Your task to perform on an android device: View the shopping cart on amazon.com. Add "apple airpods pro" to the cart on amazon.com, then select checkout. Image 0: 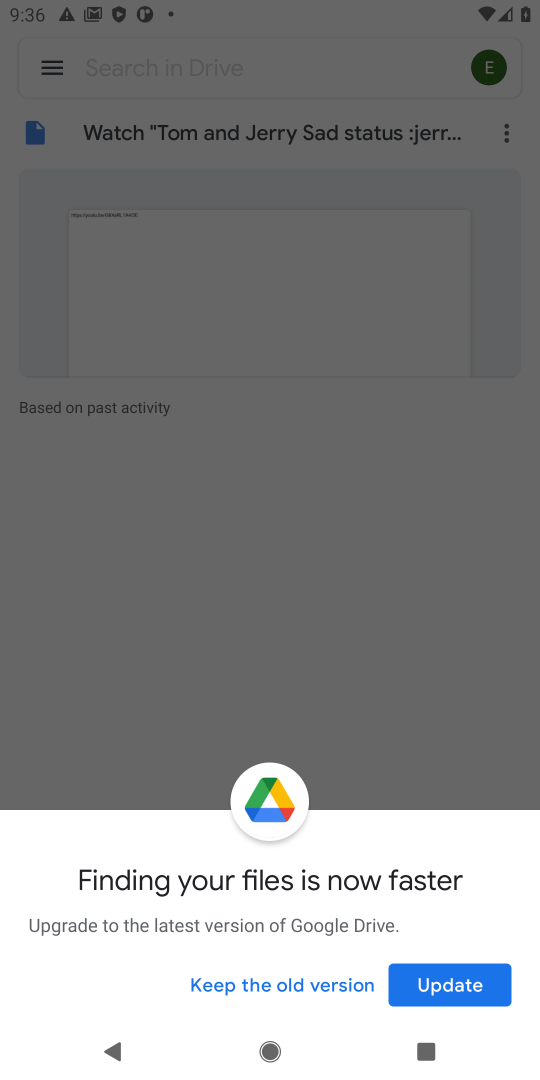
Step 0: press home button
Your task to perform on an android device: View the shopping cart on amazon.com. Add "apple airpods pro" to the cart on amazon.com, then select checkout. Image 1: 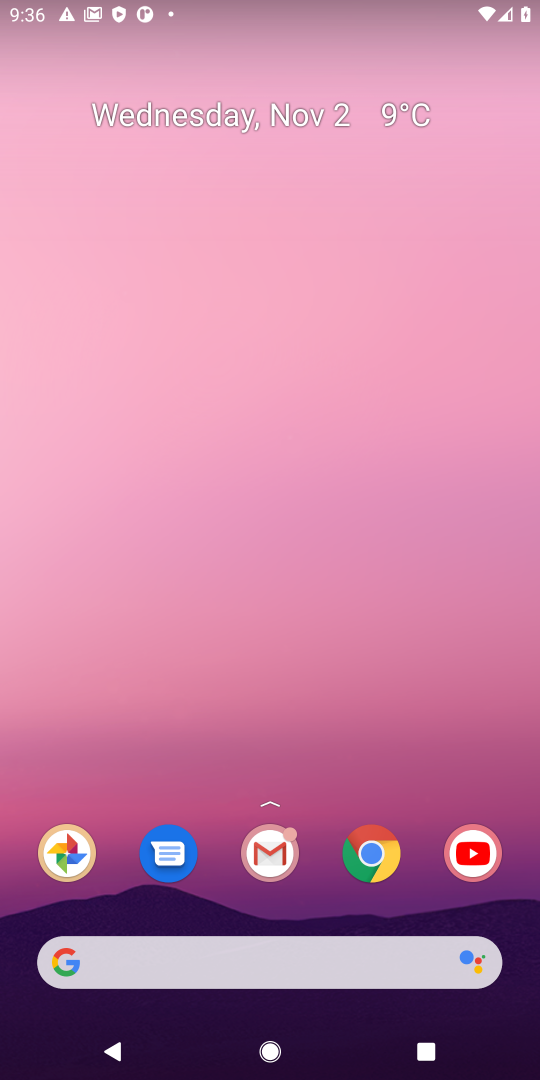
Step 1: click (361, 856)
Your task to perform on an android device: View the shopping cart on amazon.com. Add "apple airpods pro" to the cart on amazon.com, then select checkout. Image 2: 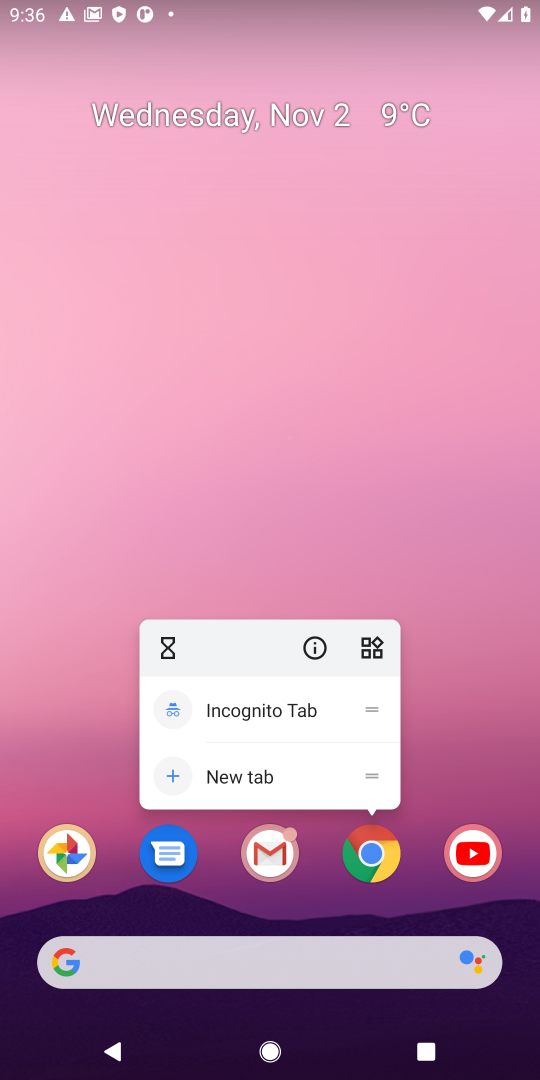
Step 2: click (371, 850)
Your task to perform on an android device: View the shopping cart on amazon.com. Add "apple airpods pro" to the cart on amazon.com, then select checkout. Image 3: 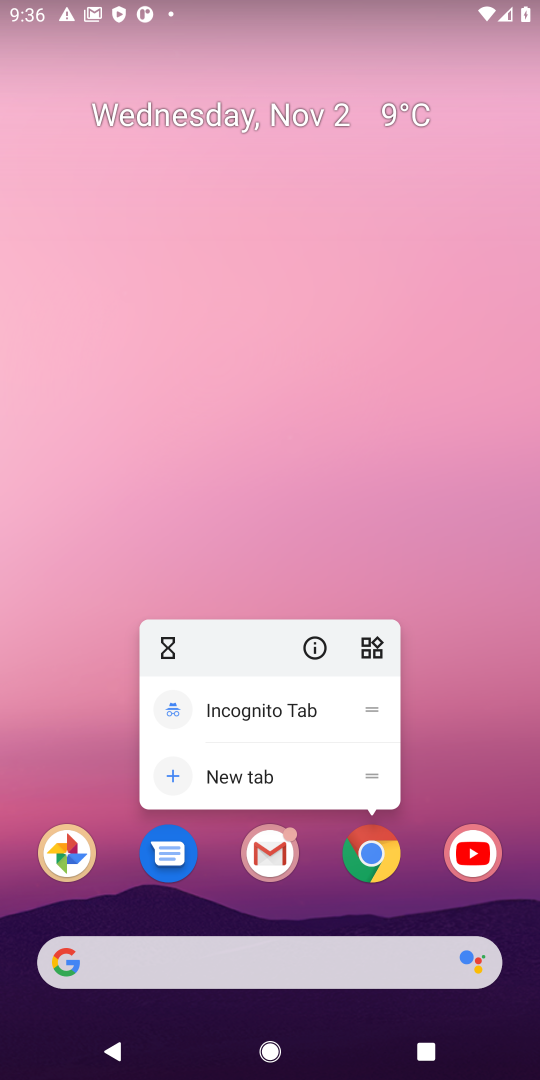
Step 3: click (385, 835)
Your task to perform on an android device: View the shopping cart on amazon.com. Add "apple airpods pro" to the cart on amazon.com, then select checkout. Image 4: 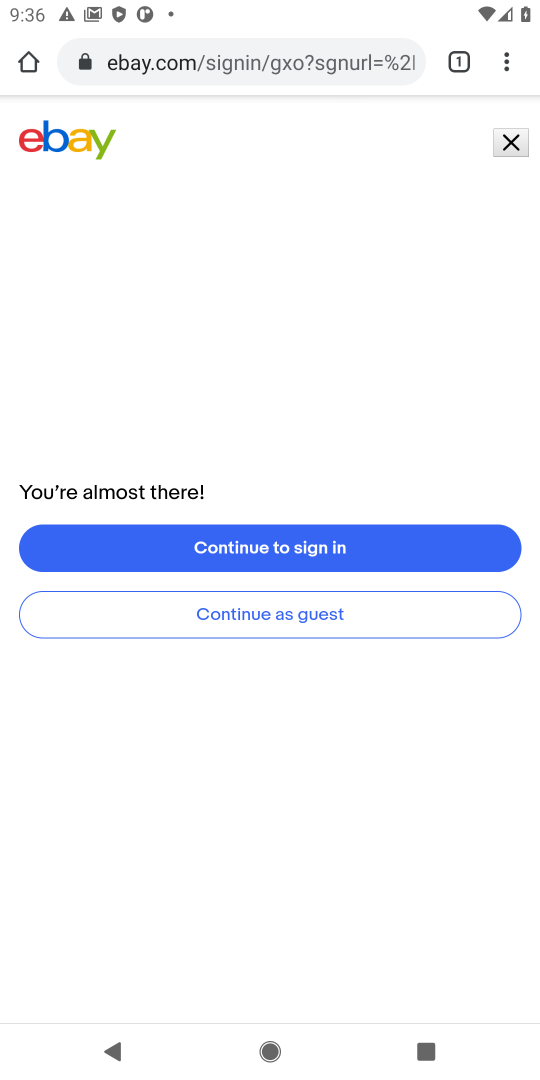
Step 4: click (201, 59)
Your task to perform on an android device: View the shopping cart on amazon.com. Add "apple airpods pro" to the cart on amazon.com, then select checkout. Image 5: 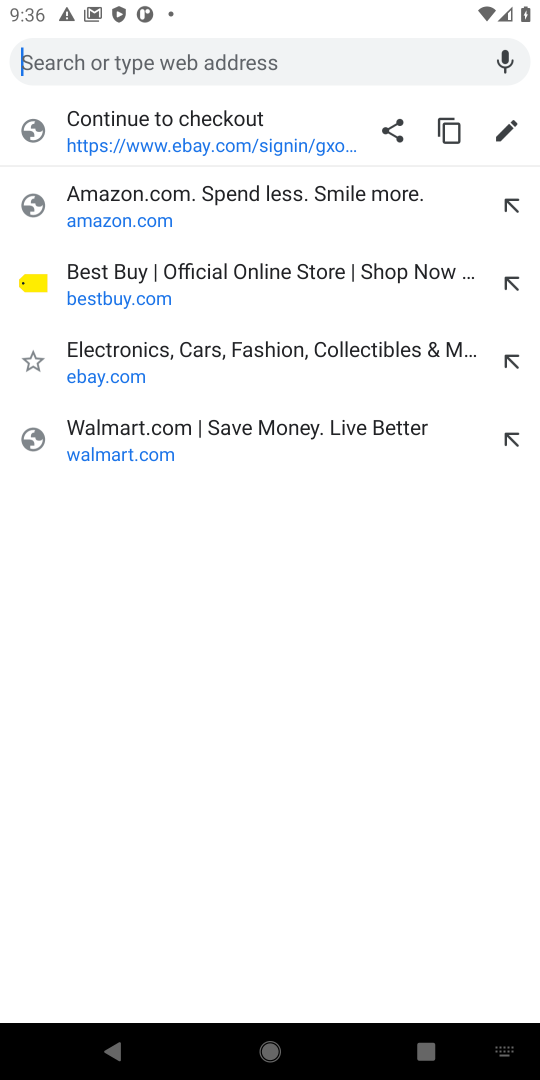
Step 5: click (117, 219)
Your task to perform on an android device: View the shopping cart on amazon.com. Add "apple airpods pro" to the cart on amazon.com, then select checkout. Image 6: 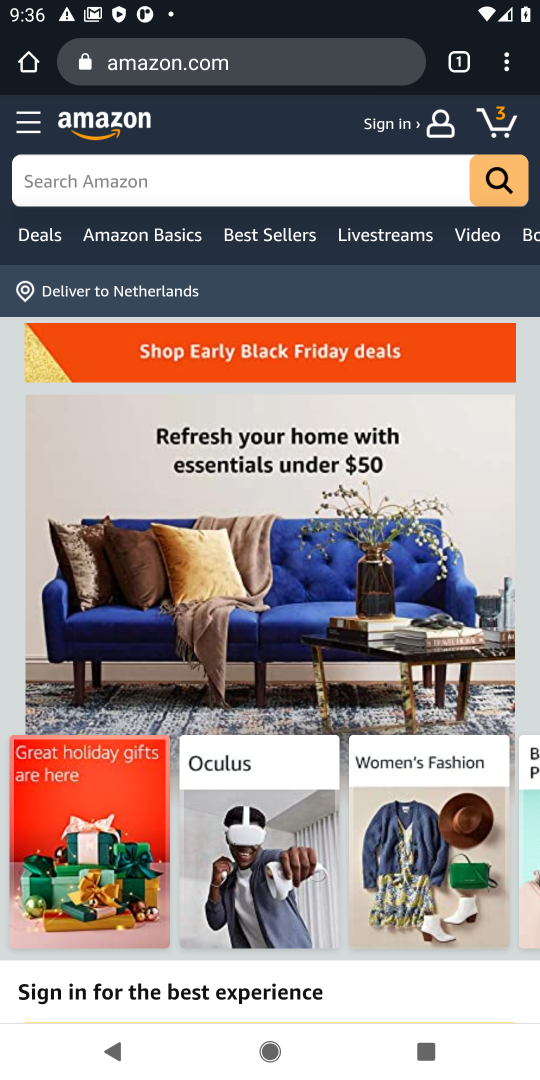
Step 6: click (124, 178)
Your task to perform on an android device: View the shopping cart on amazon.com. Add "apple airpods pro" to the cart on amazon.com, then select checkout. Image 7: 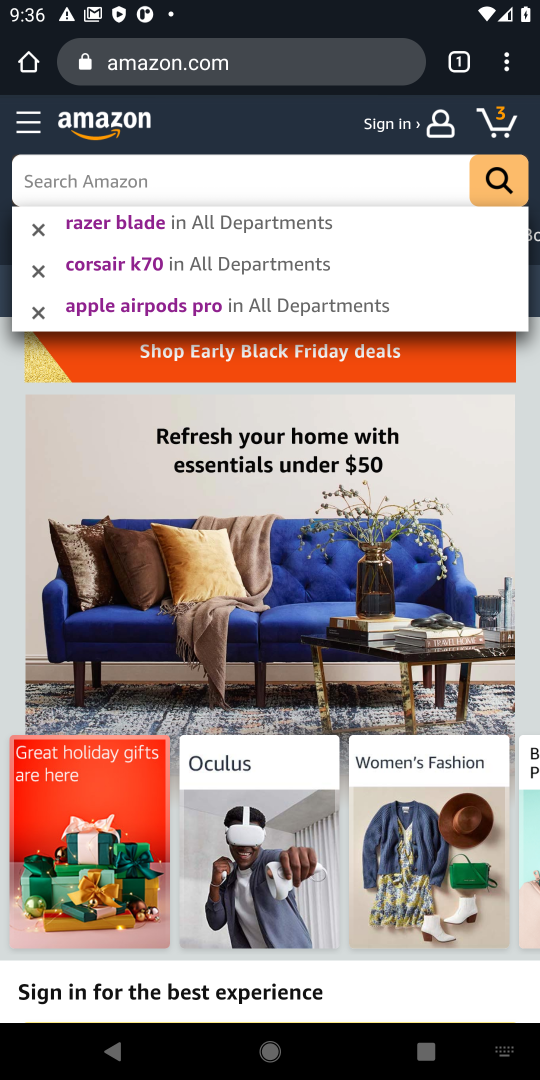
Step 7: type "apple airpods pro"
Your task to perform on an android device: View the shopping cart on amazon.com. Add "apple airpods pro" to the cart on amazon.com, then select checkout. Image 8: 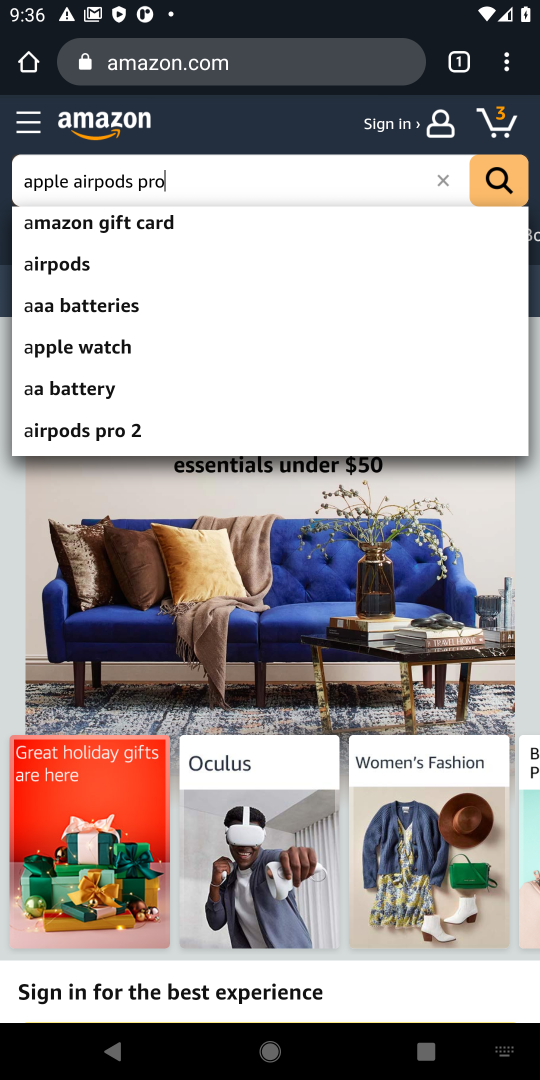
Step 8: press enter
Your task to perform on an android device: View the shopping cart on amazon.com. Add "apple airpods pro" to the cart on amazon.com, then select checkout. Image 9: 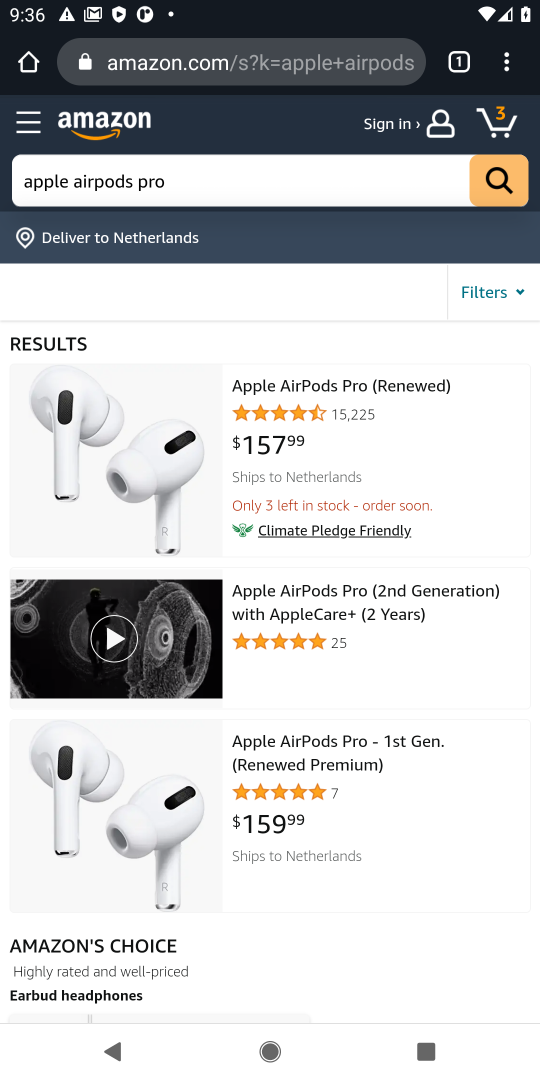
Step 9: click (290, 422)
Your task to perform on an android device: View the shopping cart on amazon.com. Add "apple airpods pro" to the cart on amazon.com, then select checkout. Image 10: 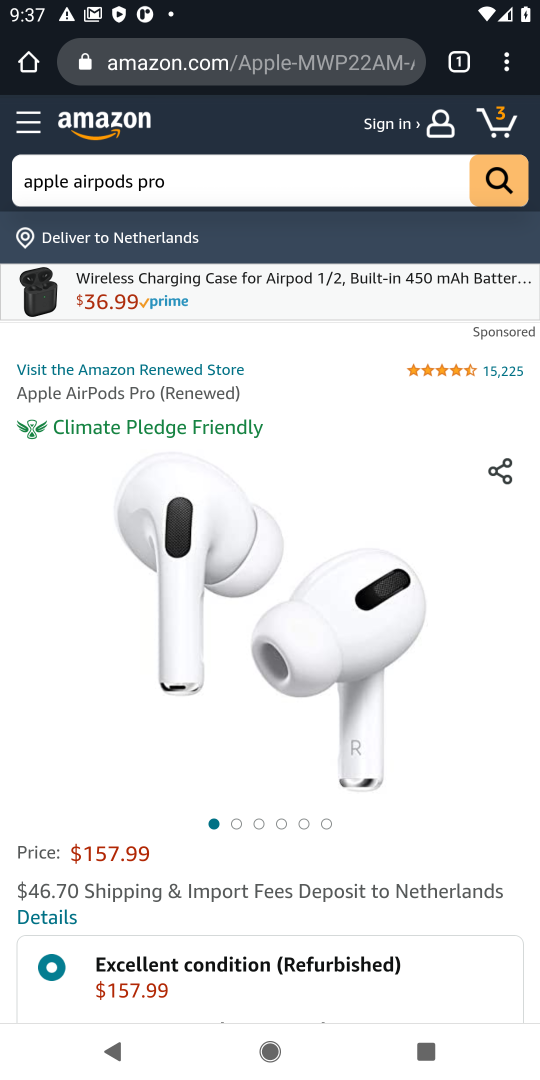
Step 10: drag from (279, 881) to (331, 347)
Your task to perform on an android device: View the shopping cart on amazon.com. Add "apple airpods pro" to the cart on amazon.com, then select checkout. Image 11: 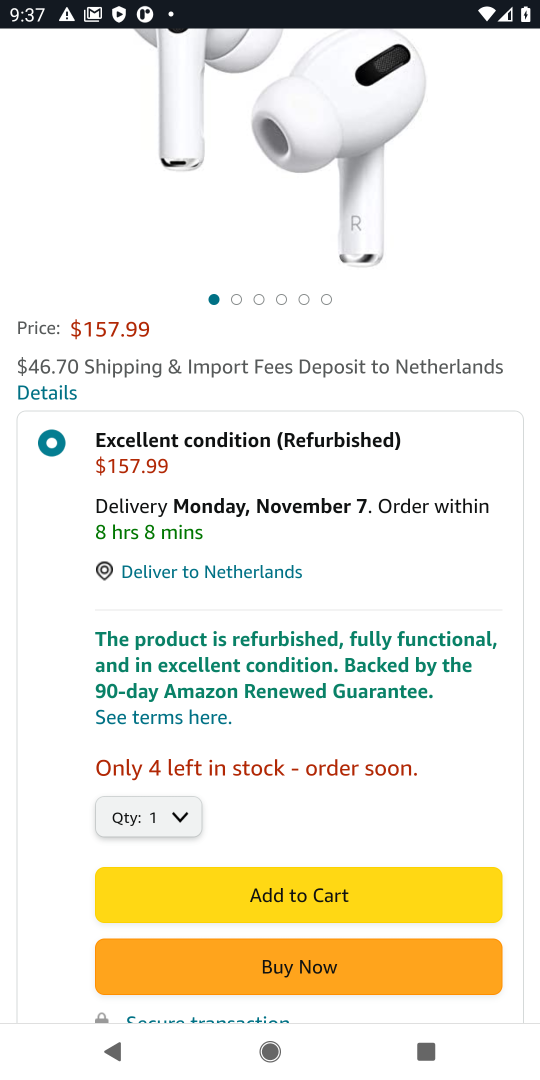
Step 11: click (319, 895)
Your task to perform on an android device: View the shopping cart on amazon.com. Add "apple airpods pro" to the cart on amazon.com, then select checkout. Image 12: 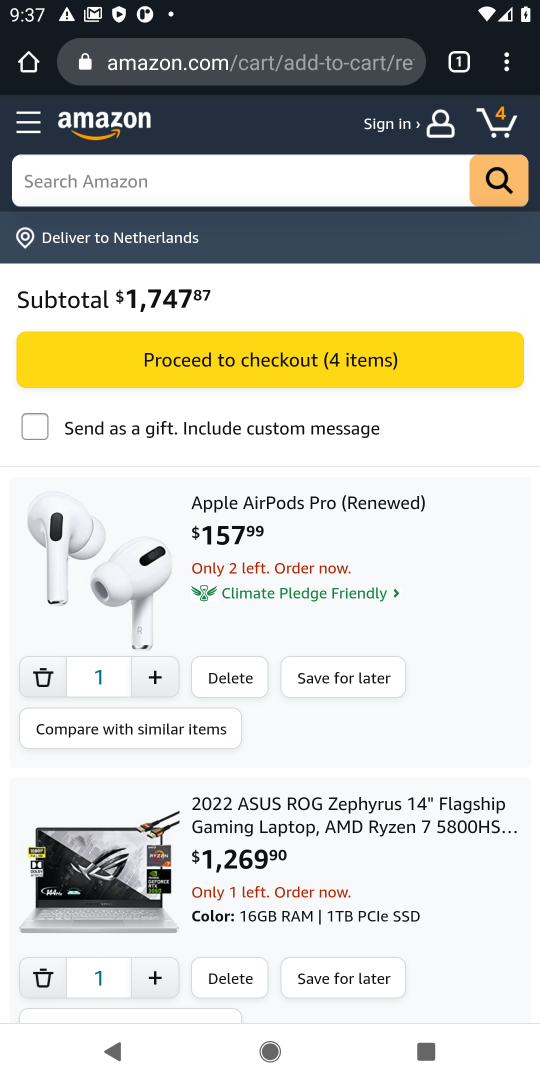
Step 12: click (485, 119)
Your task to perform on an android device: View the shopping cart on amazon.com. Add "apple airpods pro" to the cart on amazon.com, then select checkout. Image 13: 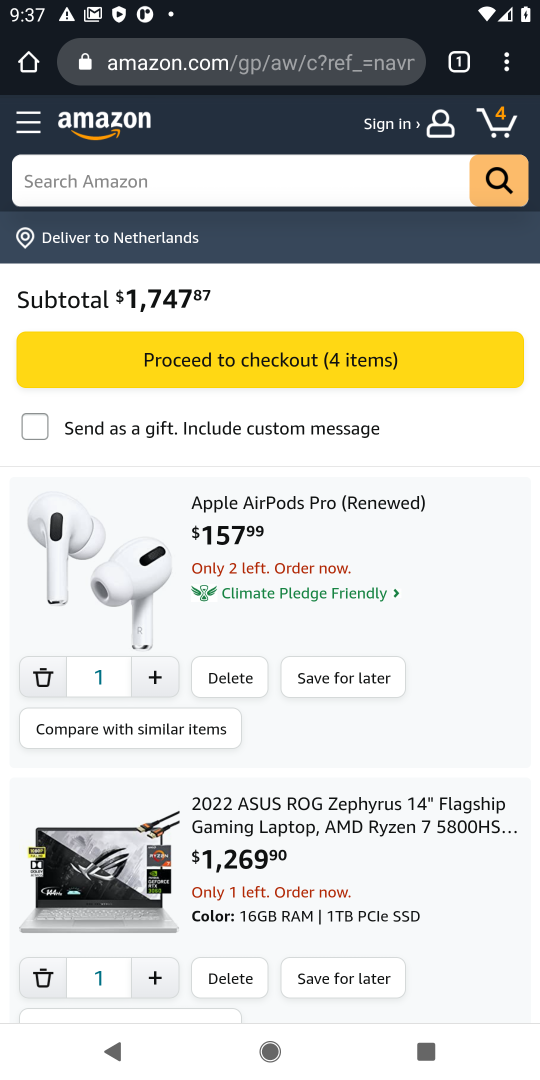
Step 13: drag from (270, 873) to (298, 513)
Your task to perform on an android device: View the shopping cart on amazon.com. Add "apple airpods pro" to the cart on amazon.com, then select checkout. Image 14: 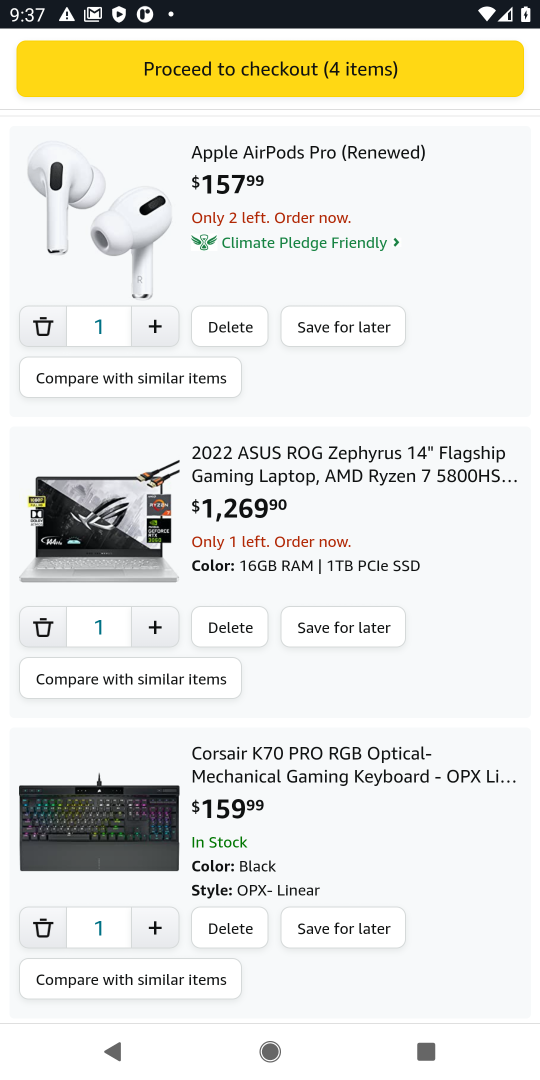
Step 14: click (234, 623)
Your task to perform on an android device: View the shopping cart on amazon.com. Add "apple airpods pro" to the cart on amazon.com, then select checkout. Image 15: 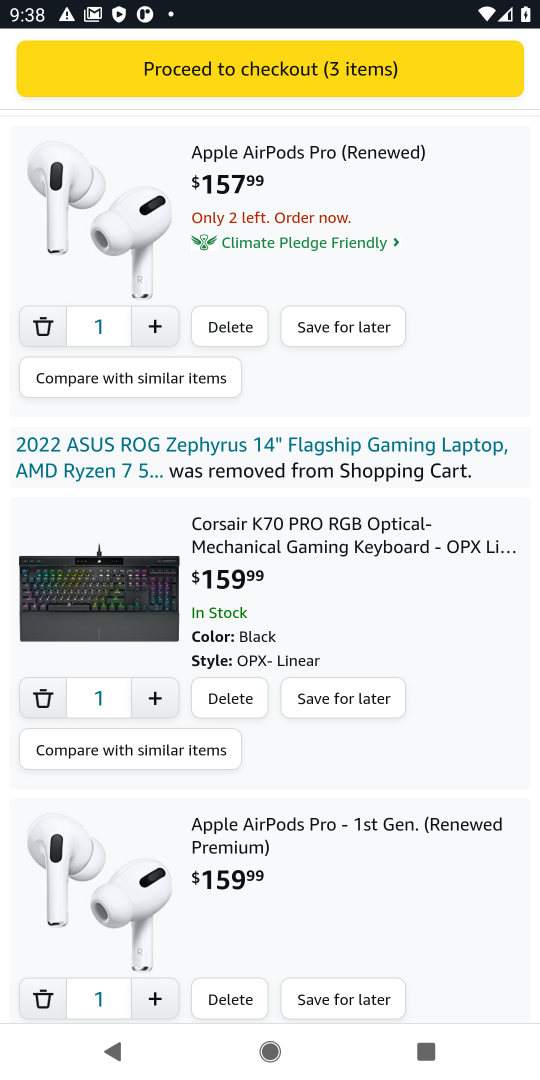
Step 15: click (232, 695)
Your task to perform on an android device: View the shopping cart on amazon.com. Add "apple airpods pro" to the cart on amazon.com, then select checkout. Image 16: 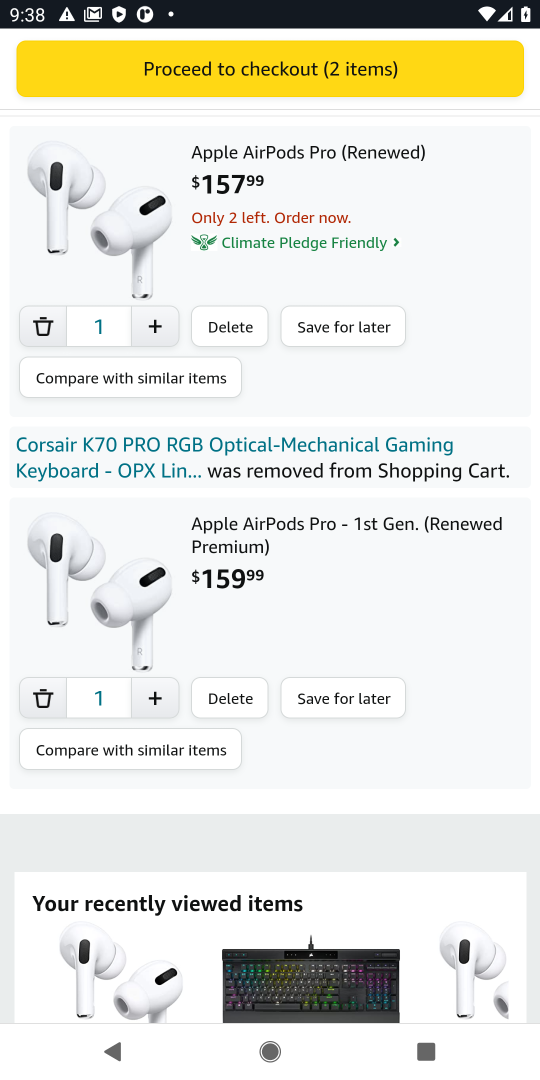
Step 16: click (228, 698)
Your task to perform on an android device: View the shopping cart on amazon.com. Add "apple airpods pro" to the cart on amazon.com, then select checkout. Image 17: 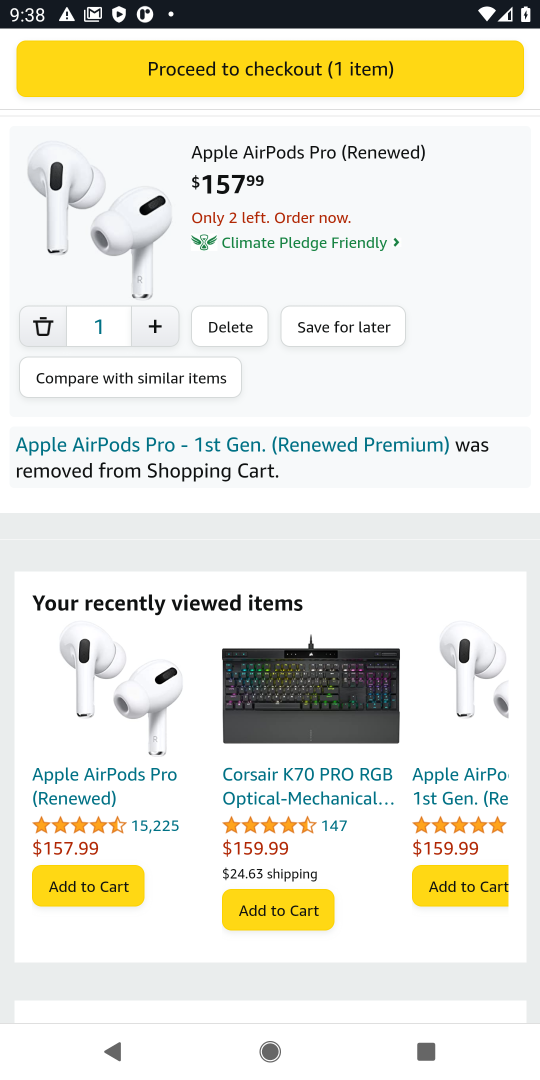
Step 17: click (273, 68)
Your task to perform on an android device: View the shopping cart on amazon.com. Add "apple airpods pro" to the cart on amazon.com, then select checkout. Image 18: 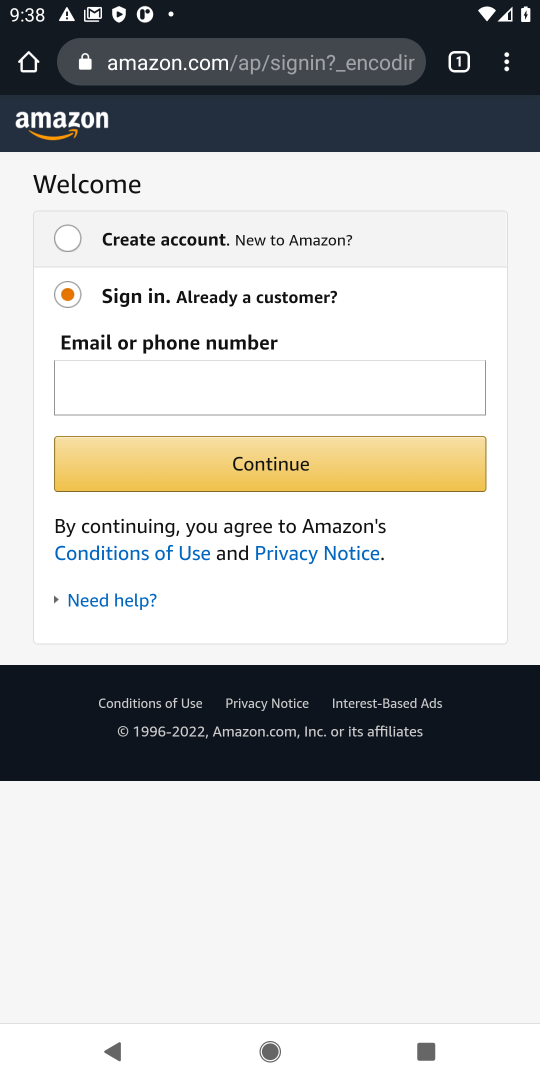
Step 18: task complete